Your task to perform on an android device: Go to battery settings Image 0: 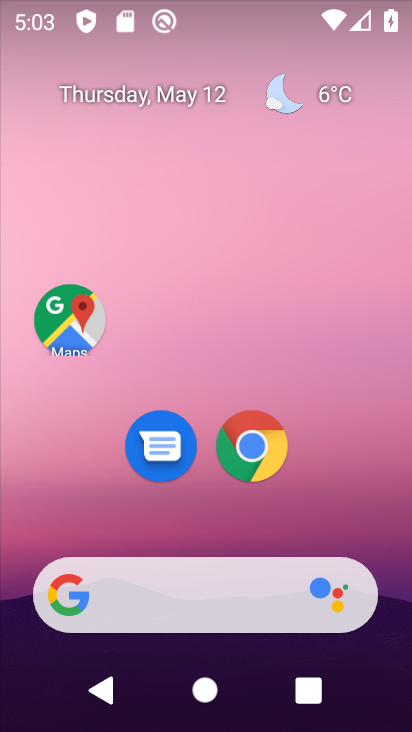
Step 0: drag from (295, 508) to (293, 93)
Your task to perform on an android device: Go to battery settings Image 1: 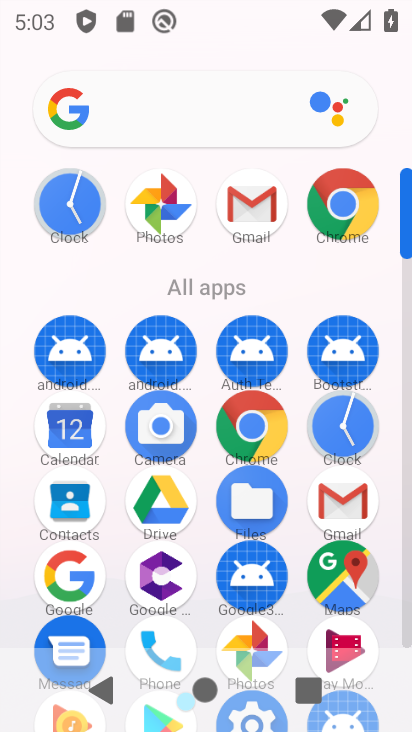
Step 1: drag from (301, 296) to (307, 69)
Your task to perform on an android device: Go to battery settings Image 2: 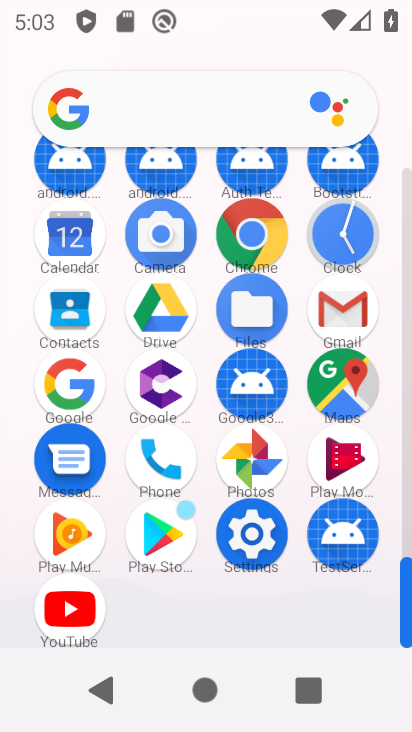
Step 2: click (256, 525)
Your task to perform on an android device: Go to battery settings Image 3: 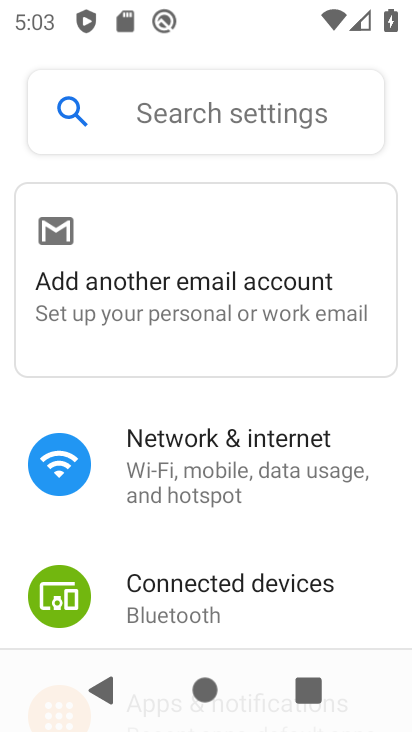
Step 3: drag from (353, 541) to (351, 120)
Your task to perform on an android device: Go to battery settings Image 4: 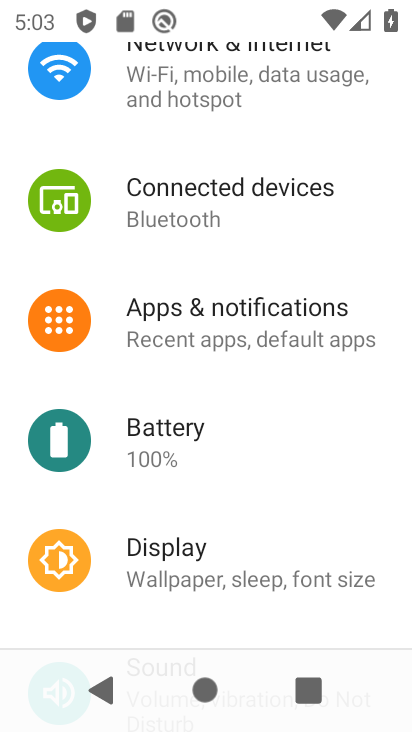
Step 4: click (167, 439)
Your task to perform on an android device: Go to battery settings Image 5: 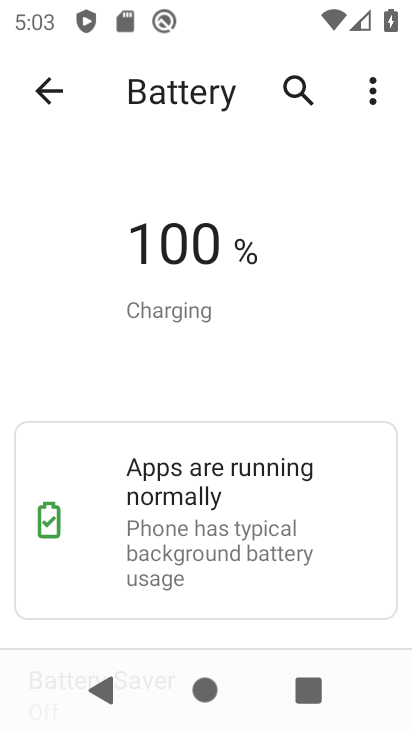
Step 5: task complete